Your task to perform on an android device: Go to Yahoo.com Image 0: 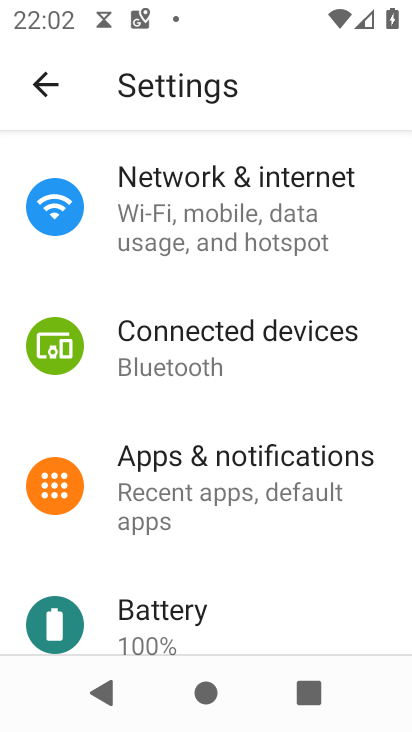
Step 0: drag from (258, 597) to (282, 261)
Your task to perform on an android device: Go to Yahoo.com Image 1: 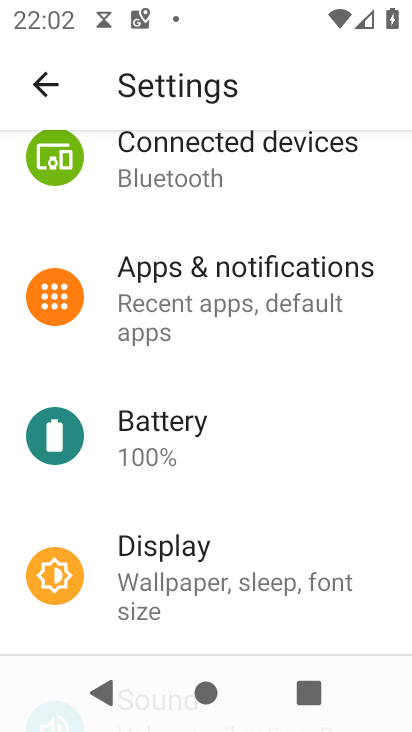
Step 1: press home button
Your task to perform on an android device: Go to Yahoo.com Image 2: 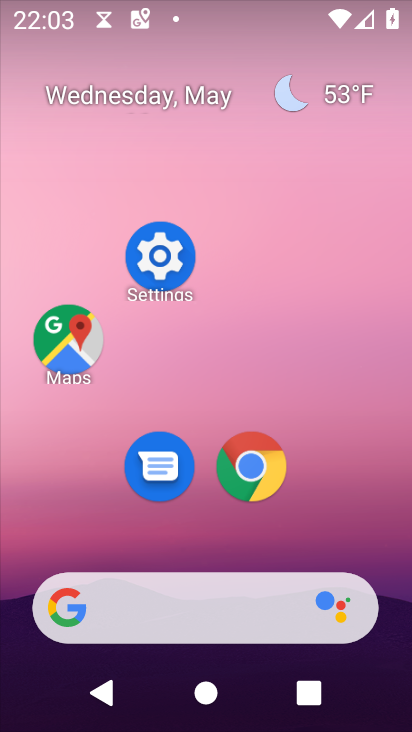
Step 2: drag from (193, 514) to (308, 41)
Your task to perform on an android device: Go to Yahoo.com Image 3: 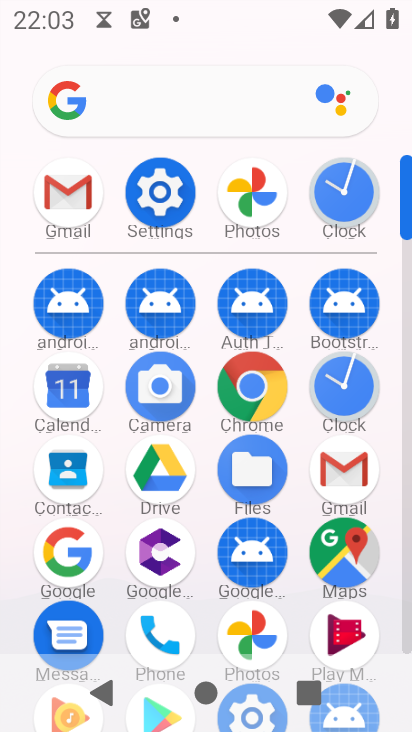
Step 3: click (189, 82)
Your task to perform on an android device: Go to Yahoo.com Image 4: 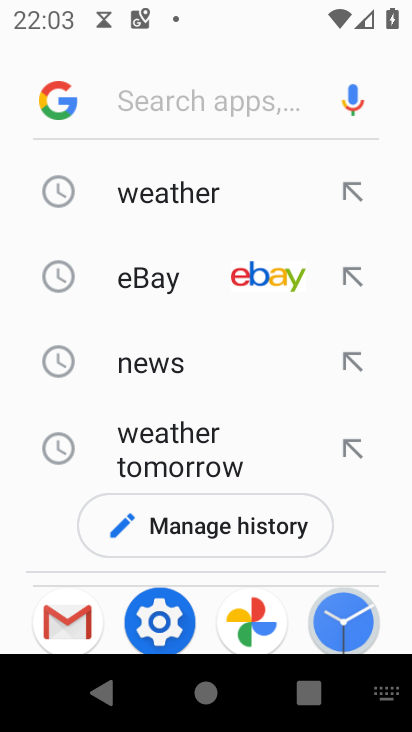
Step 4: type "yahoo"
Your task to perform on an android device: Go to Yahoo.com Image 5: 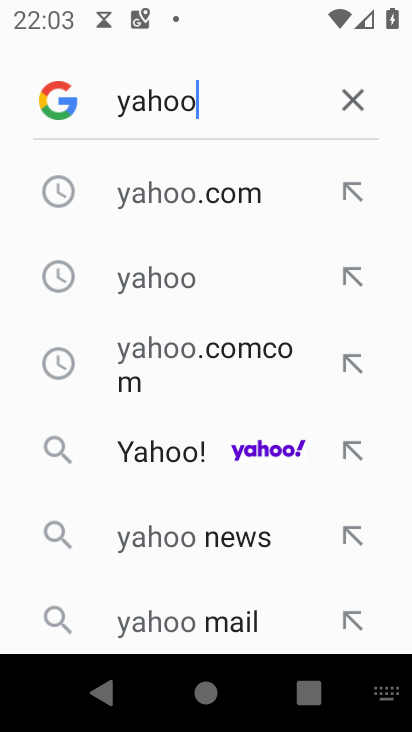
Step 5: click (206, 188)
Your task to perform on an android device: Go to Yahoo.com Image 6: 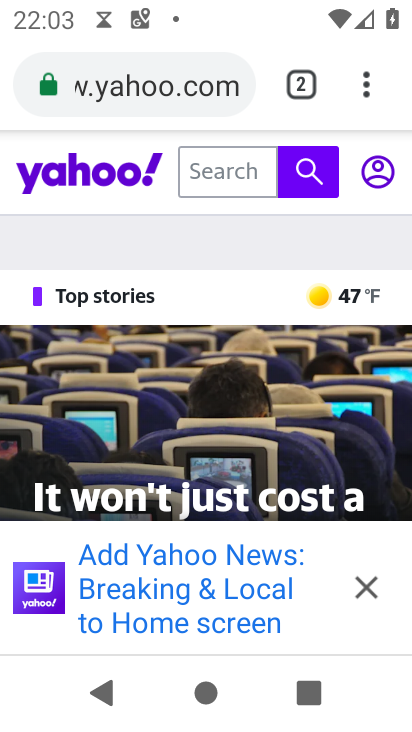
Step 6: task complete